Your task to perform on an android device: open app "Duolingo: language lessons" (install if not already installed) Image 0: 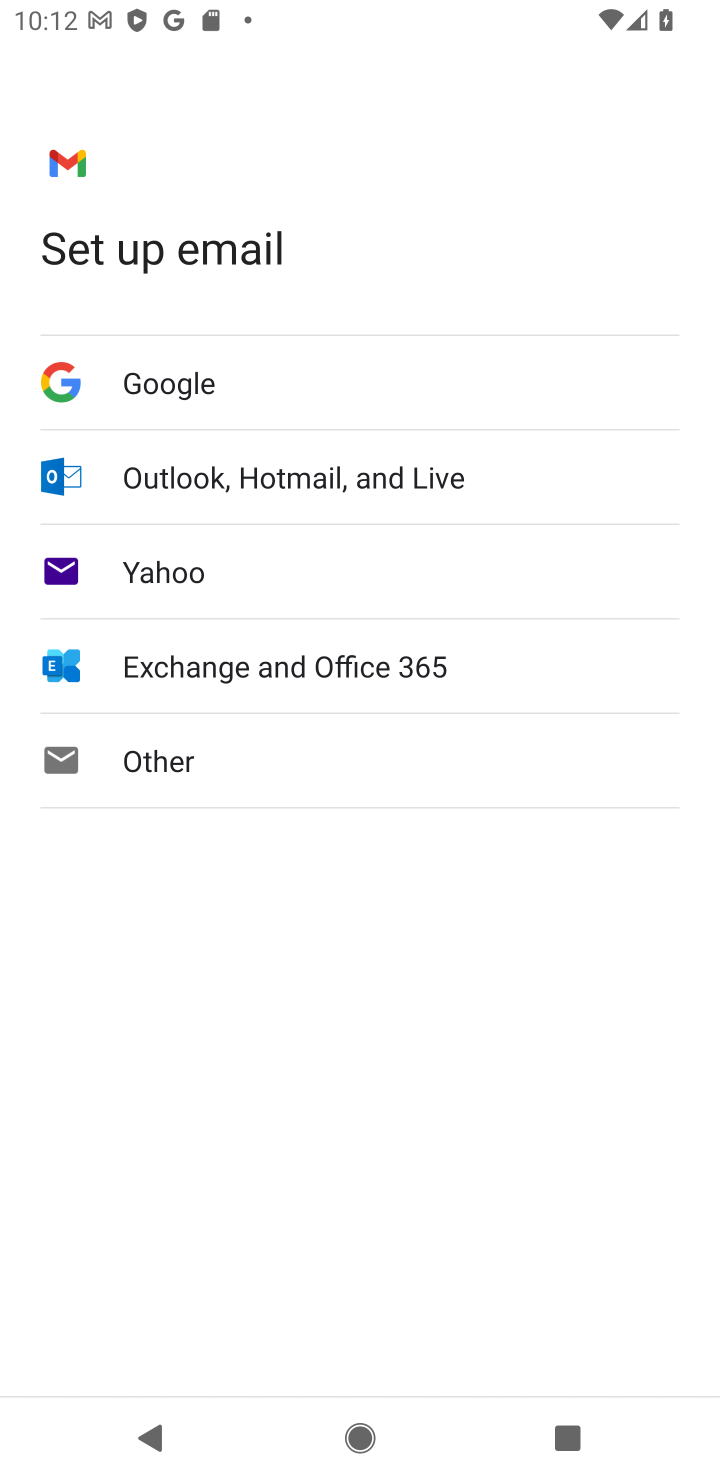
Step 0: press home button
Your task to perform on an android device: open app "Duolingo: language lessons" (install if not already installed) Image 1: 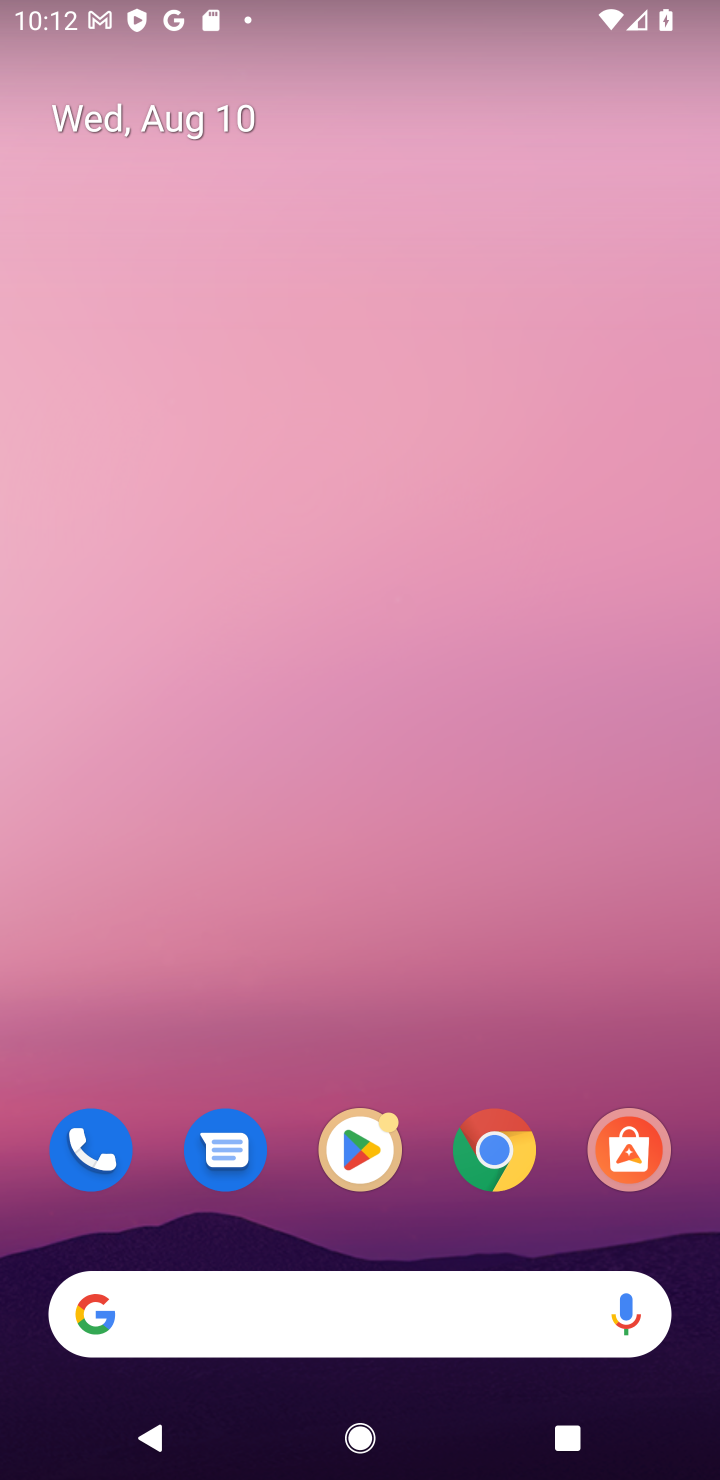
Step 1: click (341, 1136)
Your task to perform on an android device: open app "Duolingo: language lessons" (install if not already installed) Image 2: 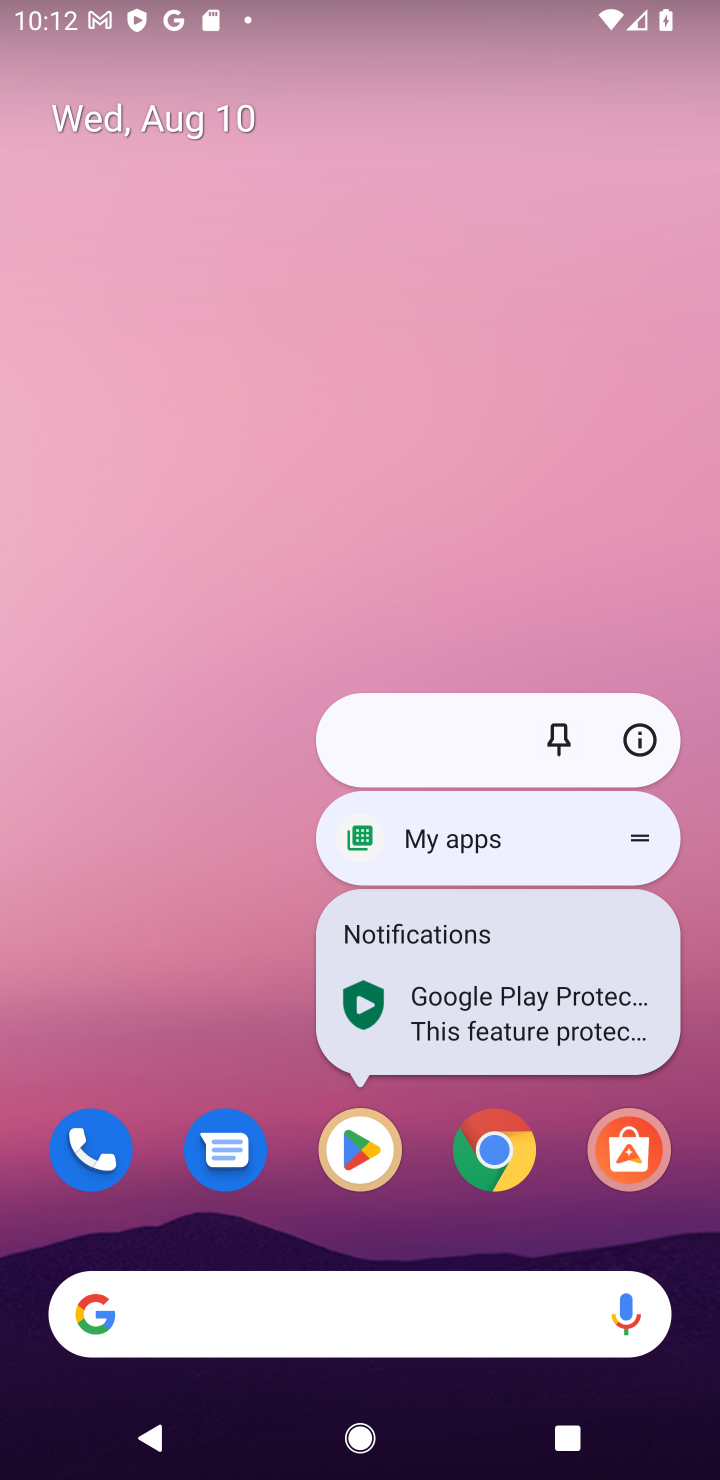
Step 2: click (341, 1143)
Your task to perform on an android device: open app "Duolingo: language lessons" (install if not already installed) Image 3: 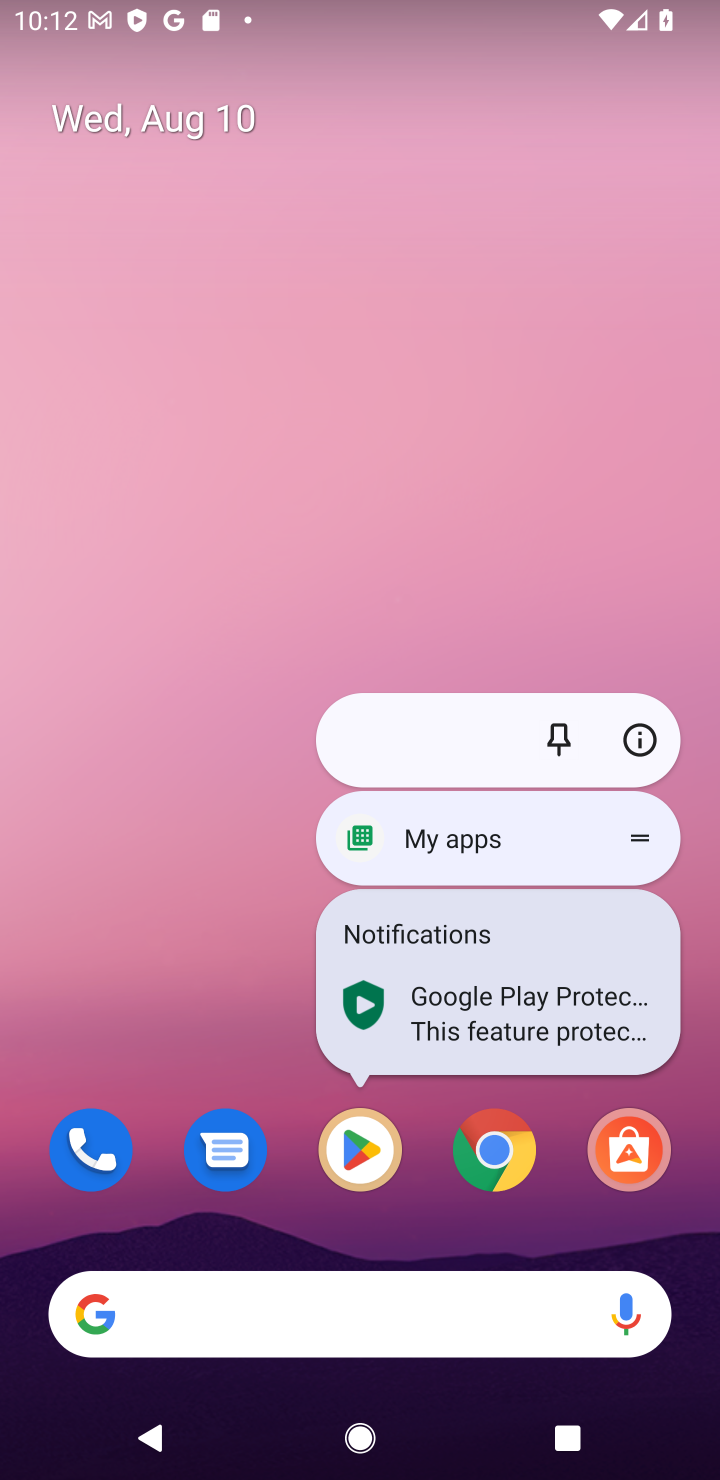
Step 3: click (341, 1143)
Your task to perform on an android device: open app "Duolingo: language lessons" (install if not already installed) Image 4: 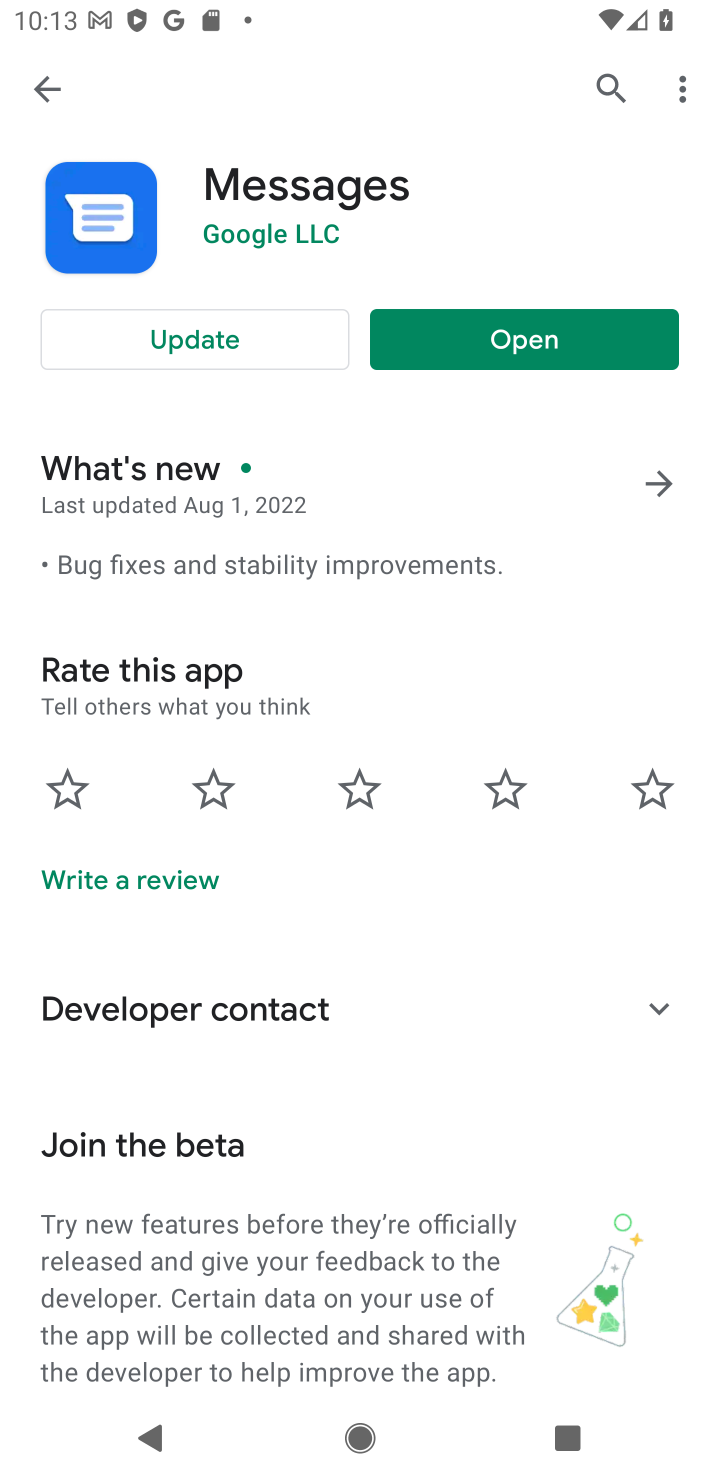
Step 4: click (604, 87)
Your task to perform on an android device: open app "Duolingo: language lessons" (install if not already installed) Image 5: 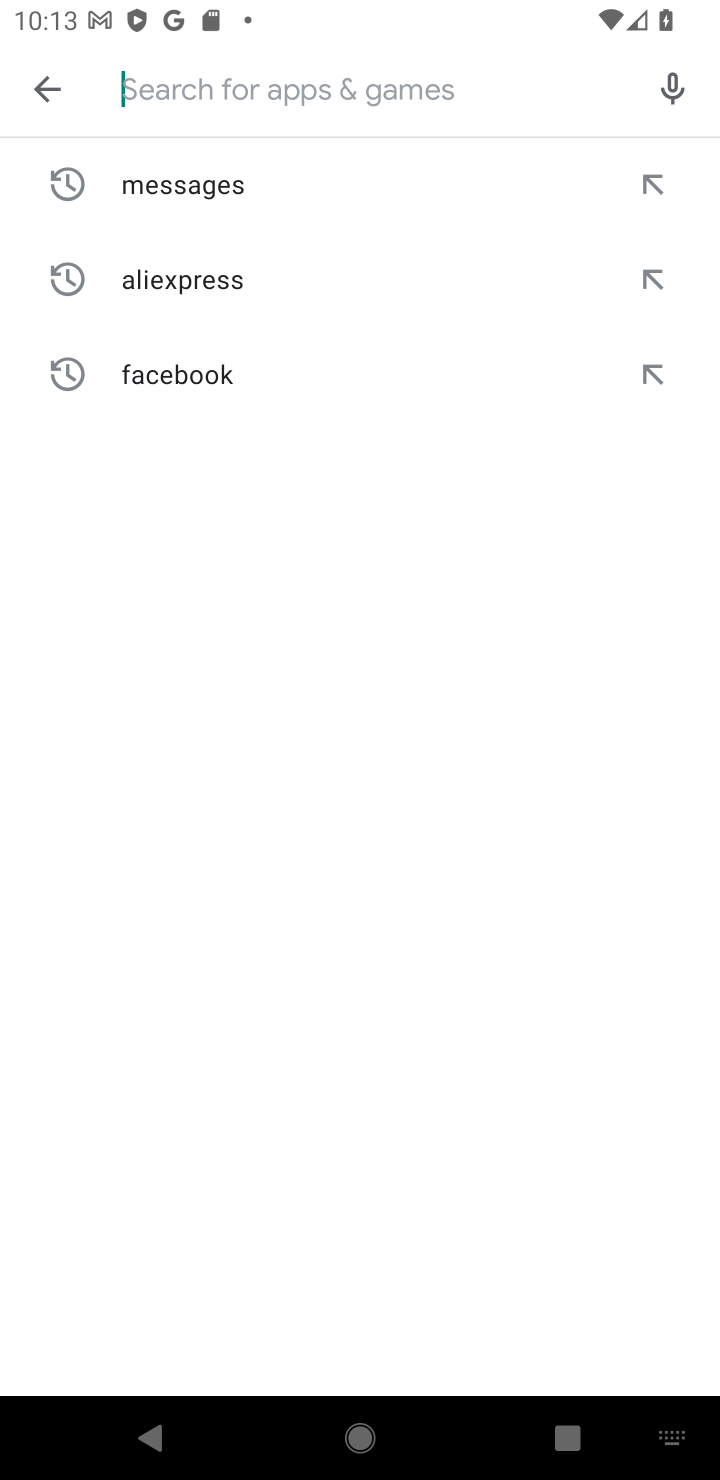
Step 5: type "Duolingo: language lessons"
Your task to perform on an android device: open app "Duolingo: language lessons" (install if not already installed) Image 6: 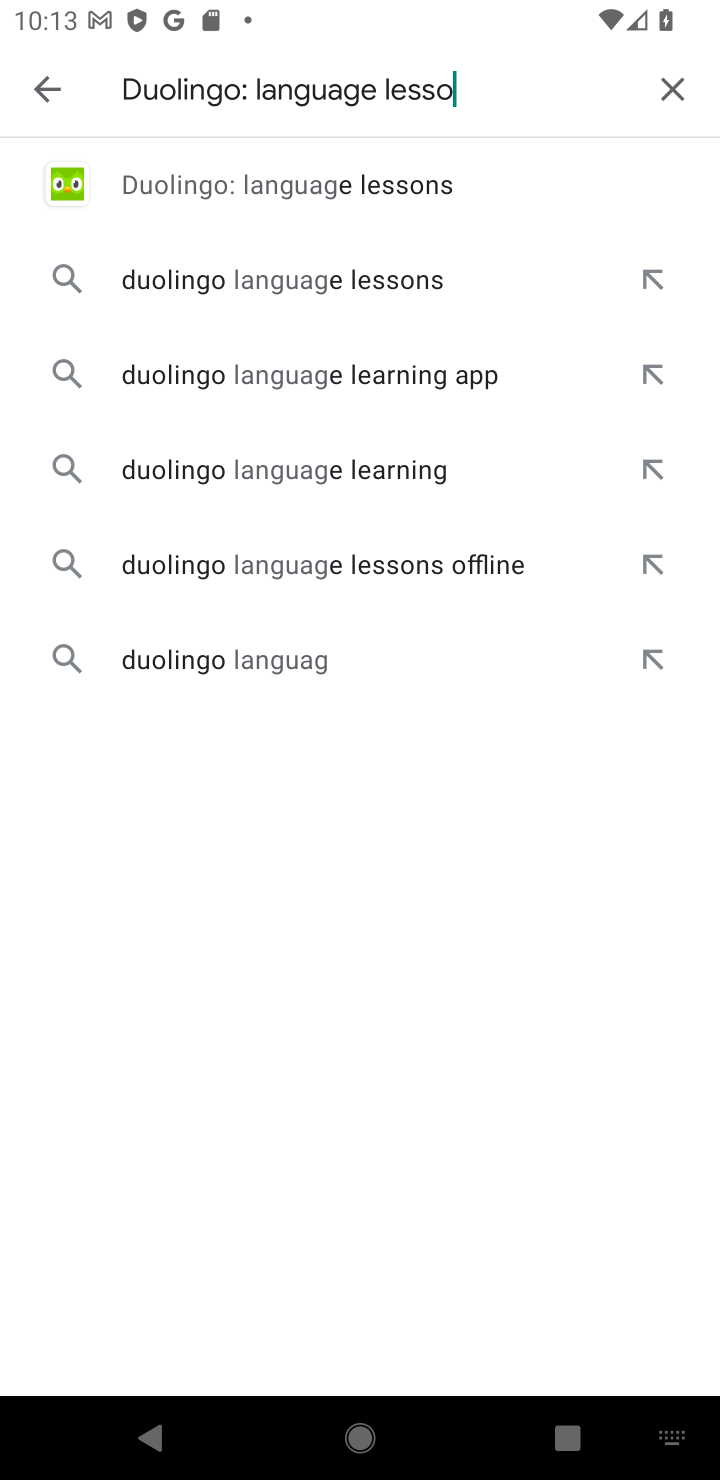
Step 6: type ""
Your task to perform on an android device: open app "Duolingo: language lessons" (install if not already installed) Image 7: 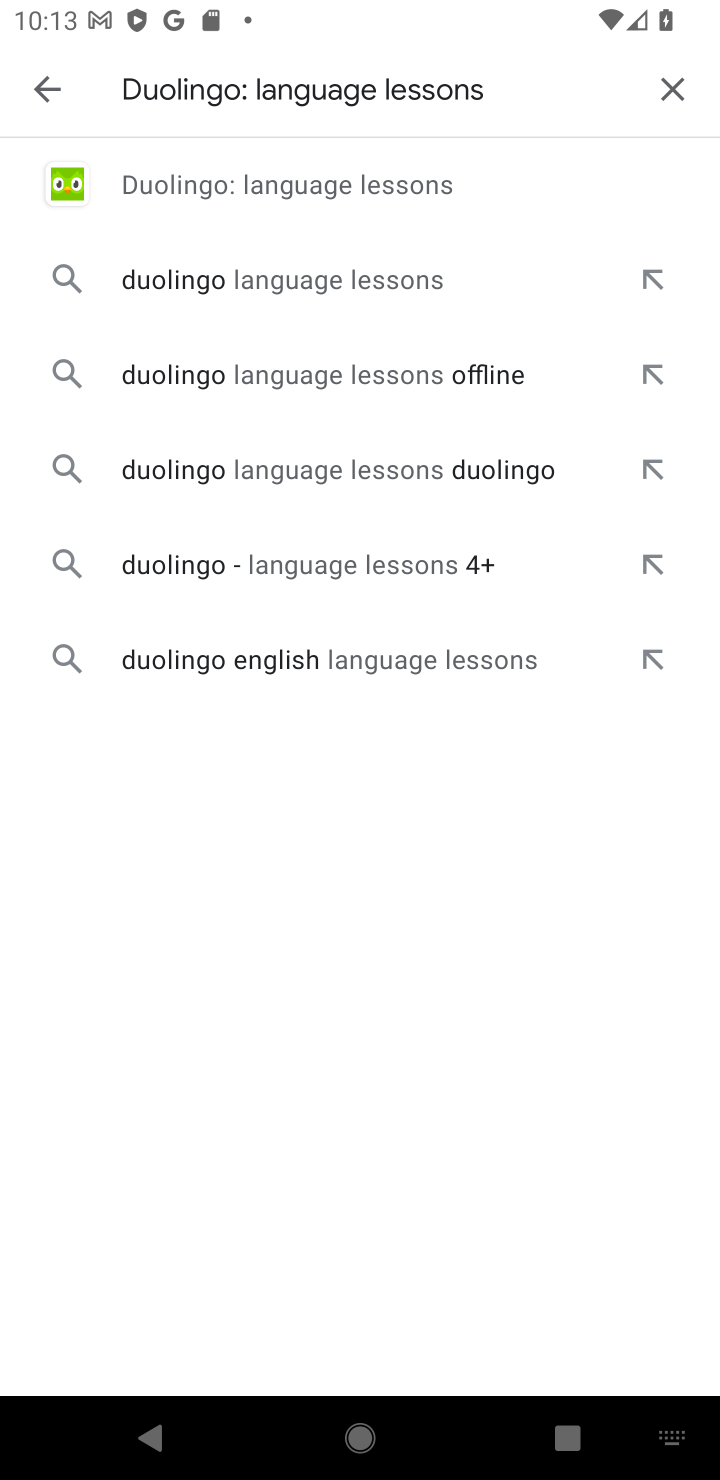
Step 7: click (319, 188)
Your task to perform on an android device: open app "Duolingo: language lessons" (install if not already installed) Image 8: 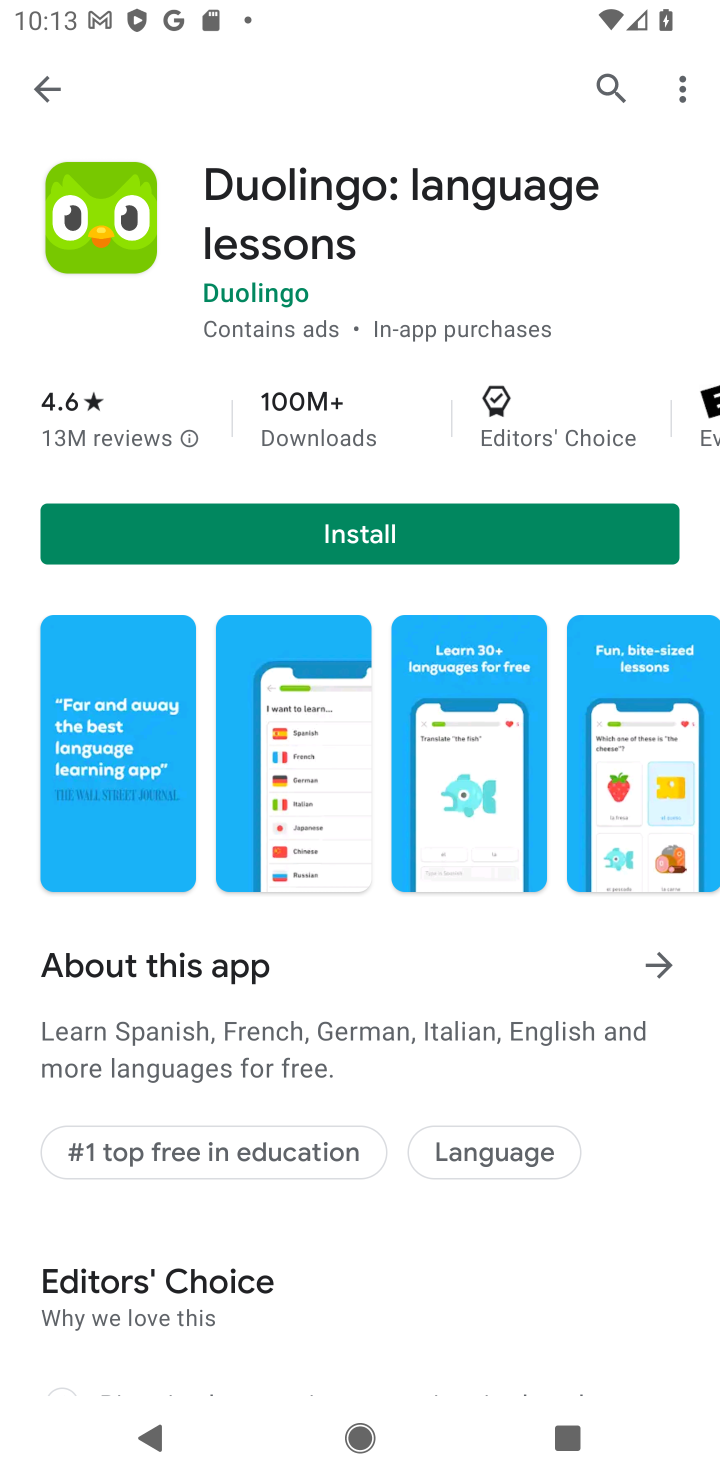
Step 8: click (281, 550)
Your task to perform on an android device: open app "Duolingo: language lessons" (install if not already installed) Image 9: 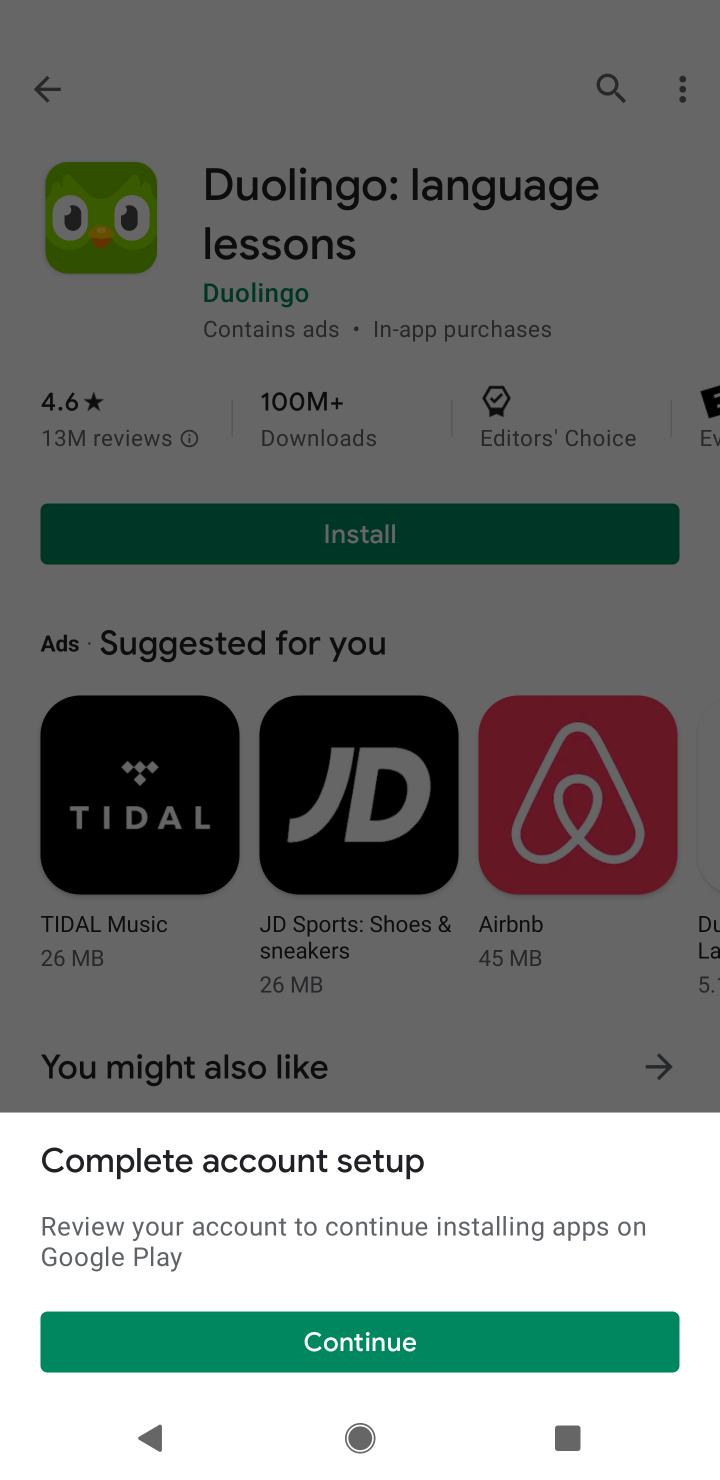
Step 9: click (485, 1322)
Your task to perform on an android device: open app "Duolingo: language lessons" (install if not already installed) Image 10: 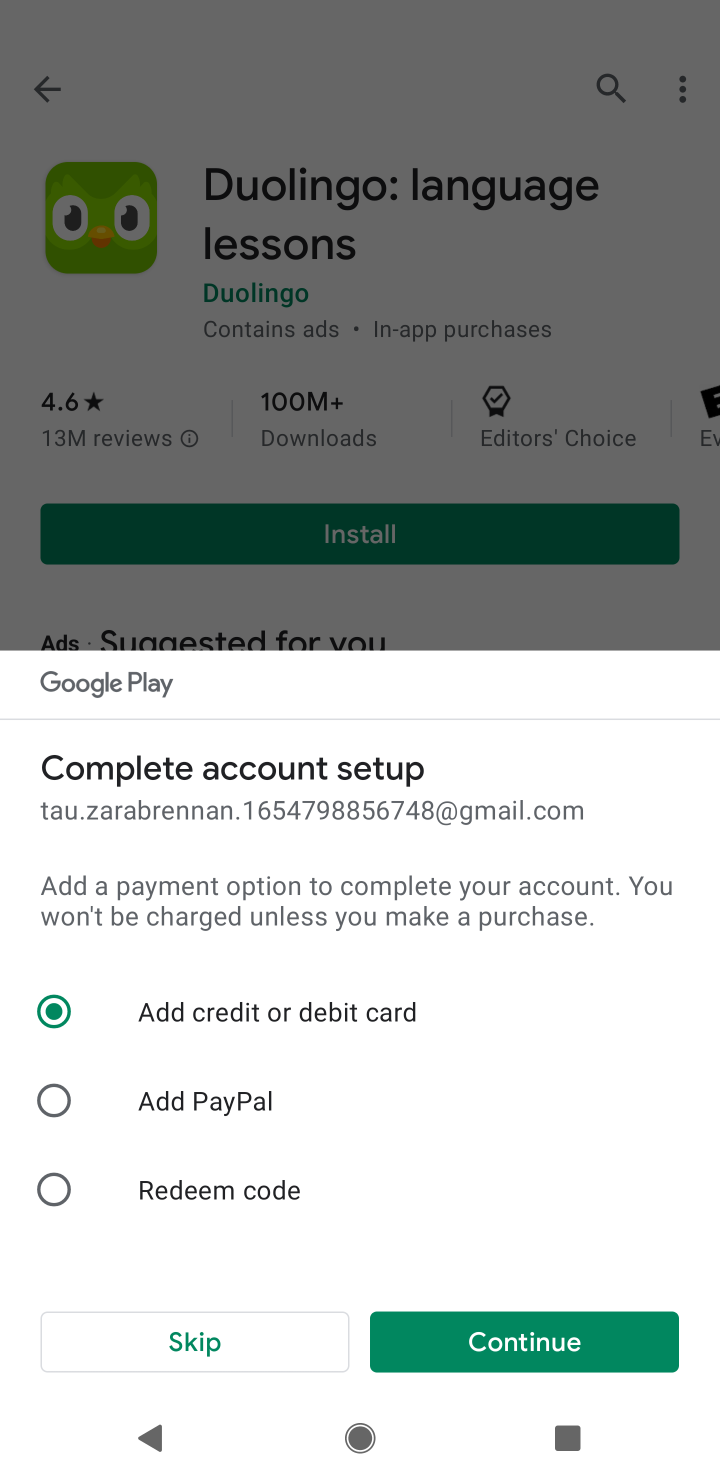
Step 10: click (246, 1359)
Your task to perform on an android device: open app "Duolingo: language lessons" (install if not already installed) Image 11: 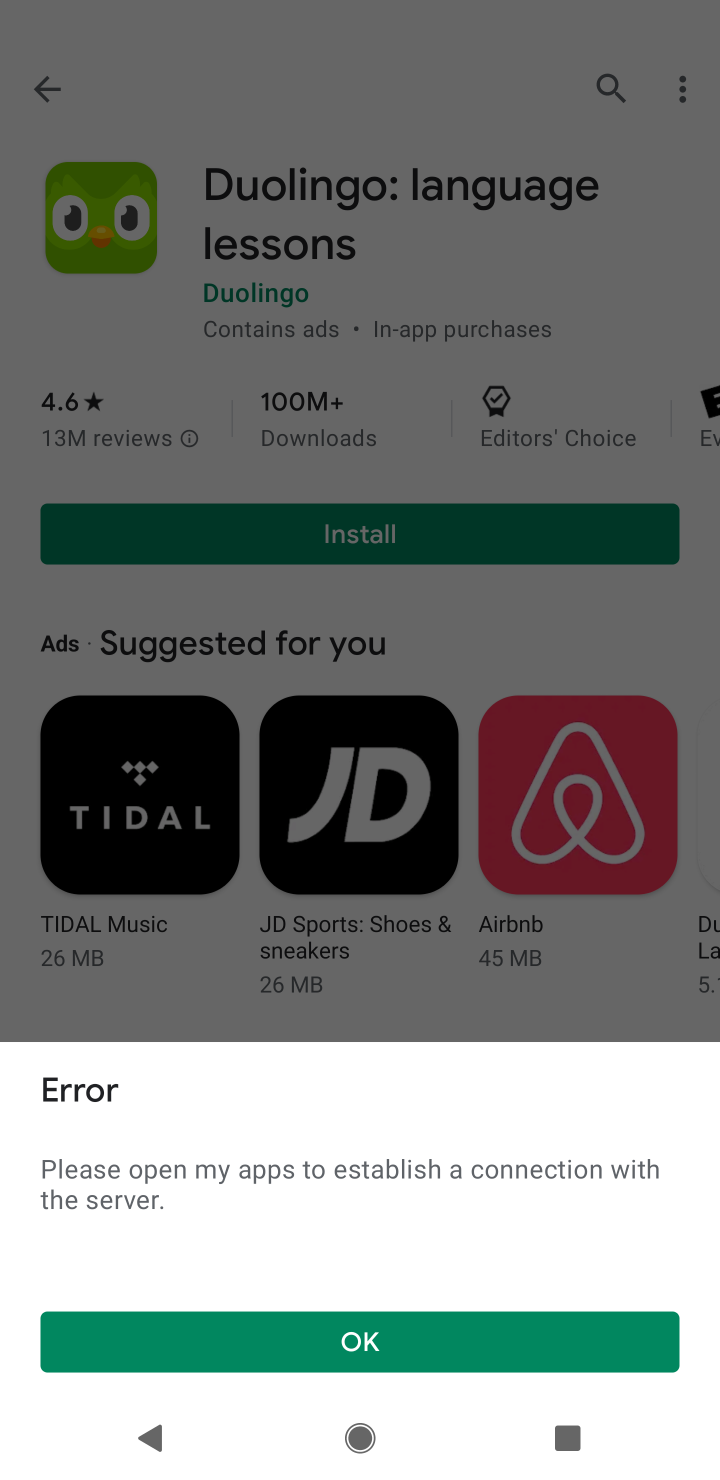
Step 11: task complete